Your task to perform on an android device: Open calendar and show me the first week of next month Image 0: 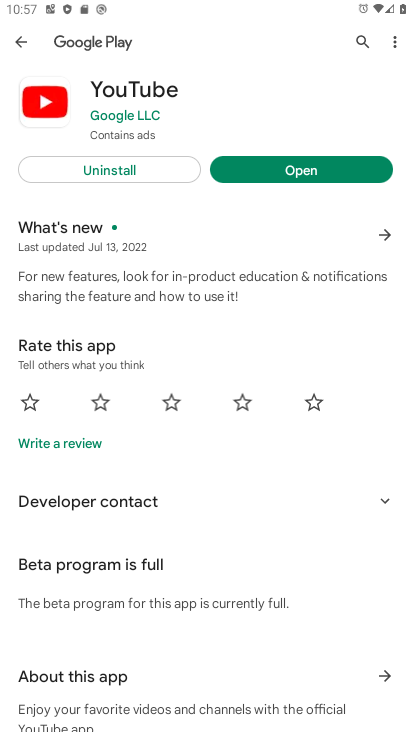
Step 0: press home button
Your task to perform on an android device: Open calendar and show me the first week of next month Image 1: 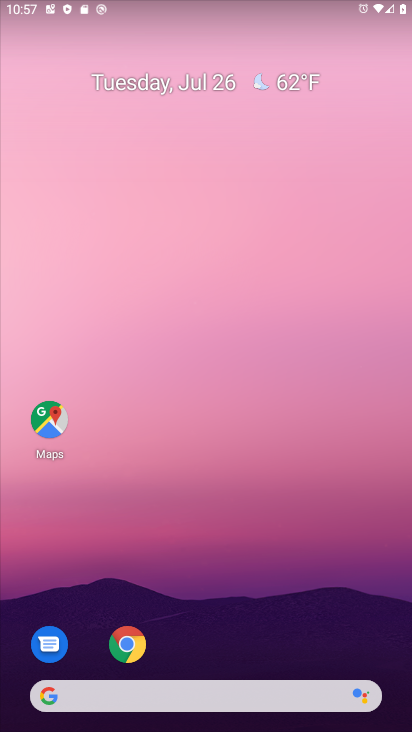
Step 1: drag from (206, 632) to (214, 107)
Your task to perform on an android device: Open calendar and show me the first week of next month Image 2: 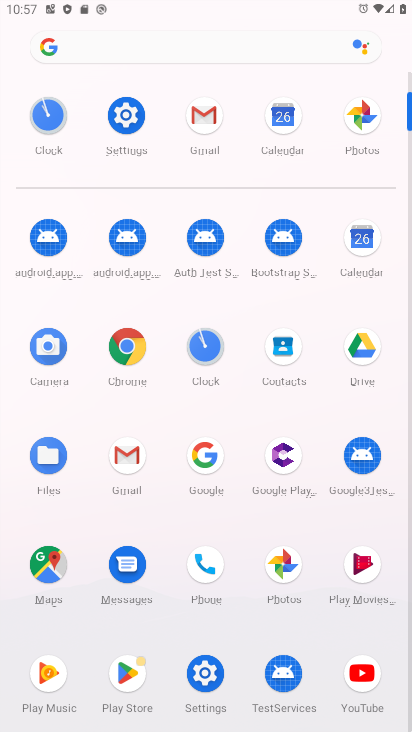
Step 2: click (363, 234)
Your task to perform on an android device: Open calendar and show me the first week of next month Image 3: 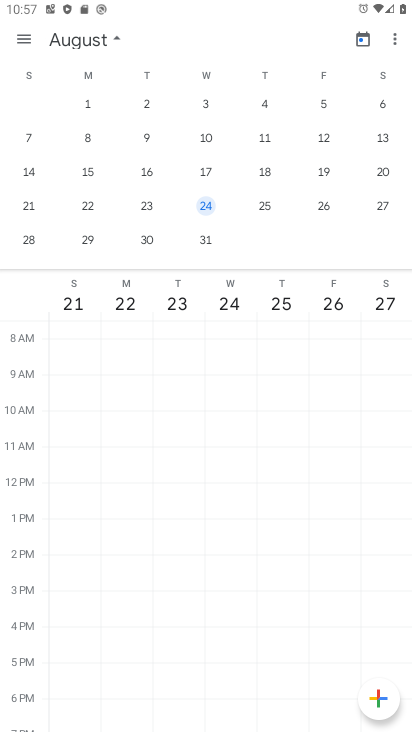
Step 3: click (146, 98)
Your task to perform on an android device: Open calendar and show me the first week of next month Image 4: 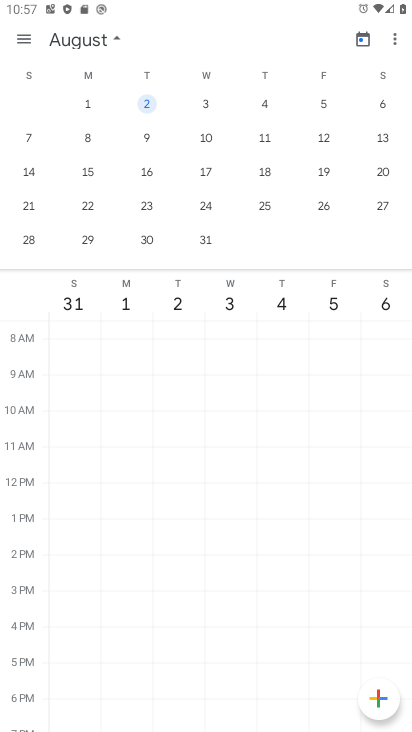
Step 4: task complete